Your task to perform on an android device: Open Amazon Image 0: 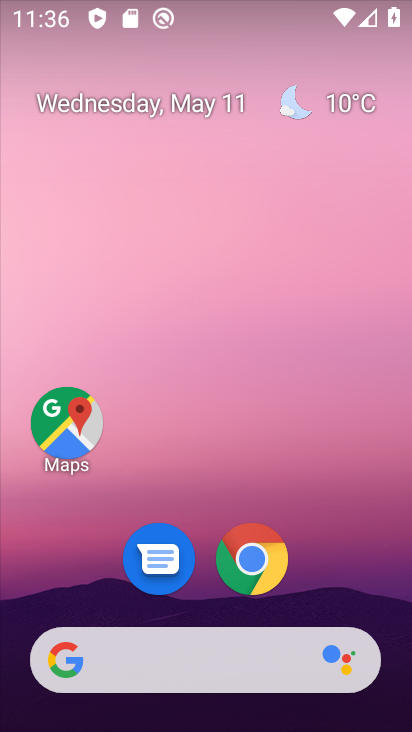
Step 0: drag from (345, 559) to (238, 22)
Your task to perform on an android device: Open Amazon Image 1: 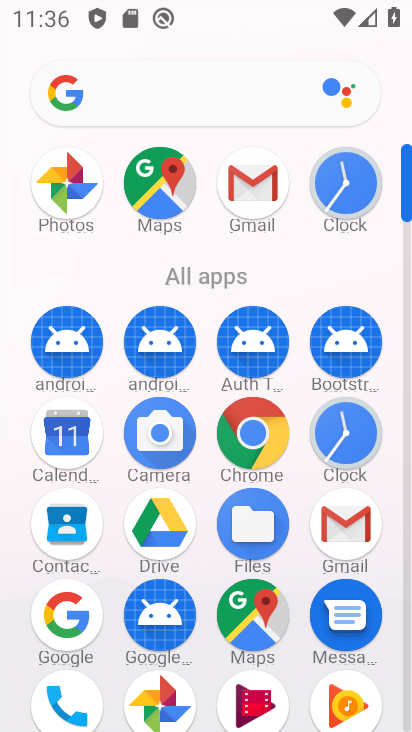
Step 1: click (247, 439)
Your task to perform on an android device: Open Amazon Image 2: 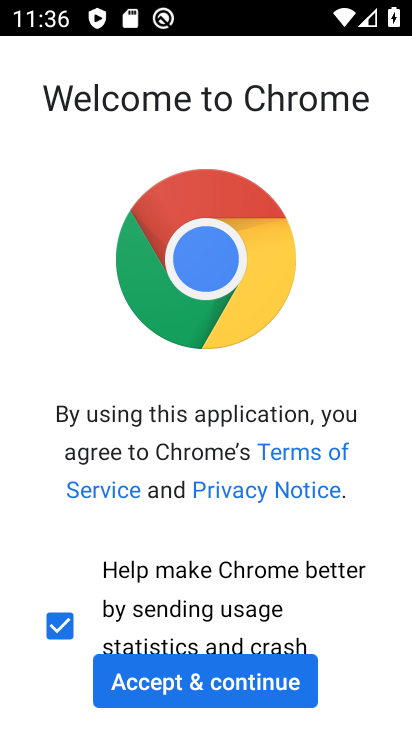
Step 2: click (202, 688)
Your task to perform on an android device: Open Amazon Image 3: 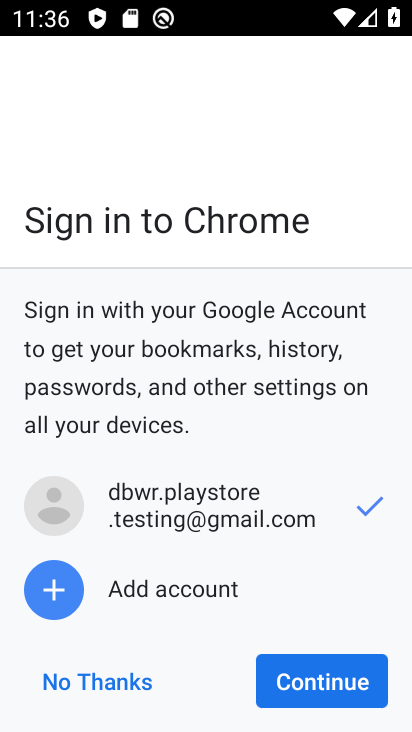
Step 3: click (331, 686)
Your task to perform on an android device: Open Amazon Image 4: 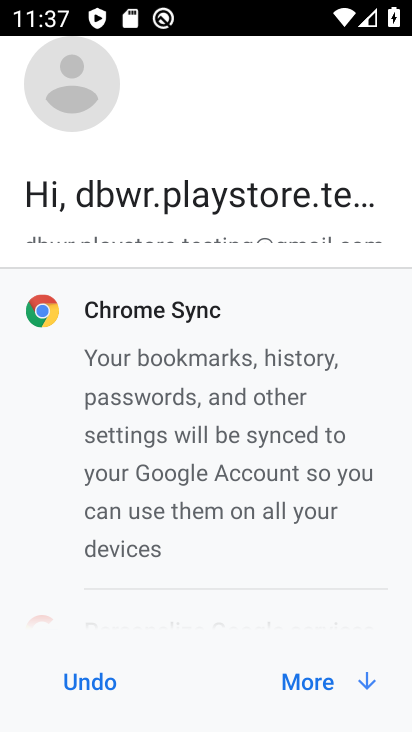
Step 4: click (293, 700)
Your task to perform on an android device: Open Amazon Image 5: 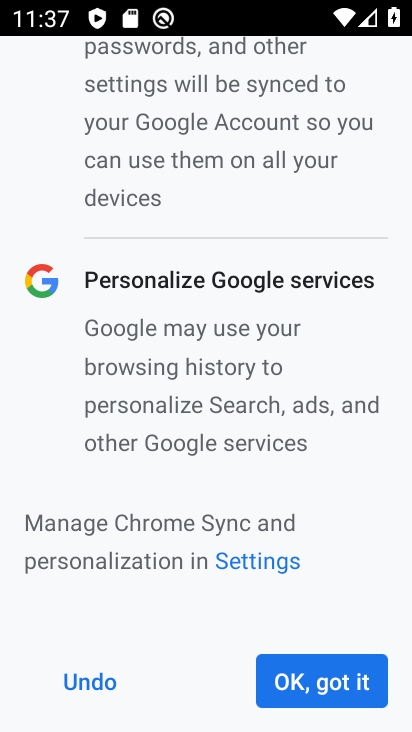
Step 5: click (344, 675)
Your task to perform on an android device: Open Amazon Image 6: 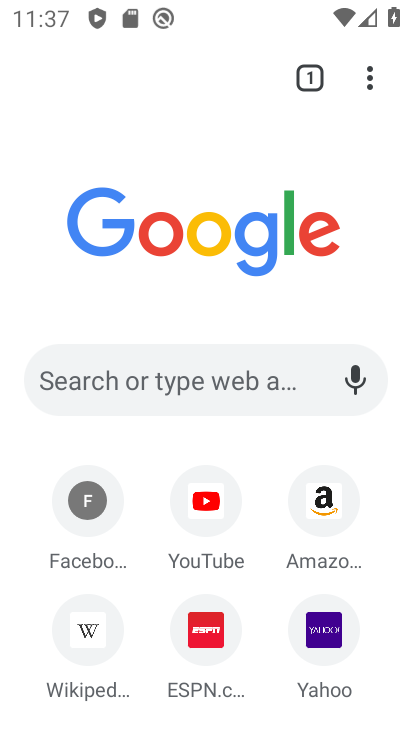
Step 6: click (310, 523)
Your task to perform on an android device: Open Amazon Image 7: 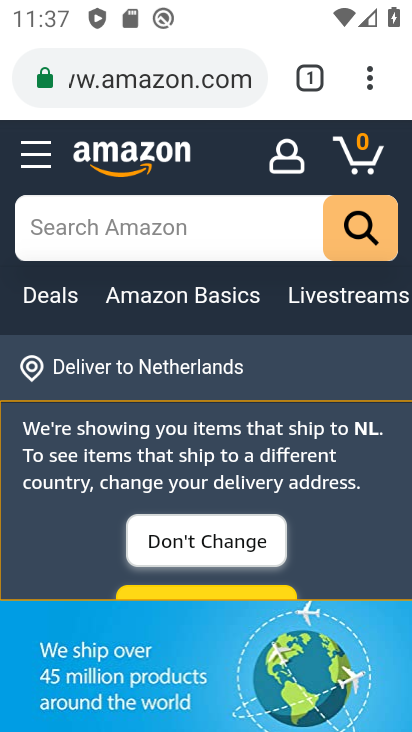
Step 7: task complete